Your task to perform on an android device: Go to accessibility settings Image 0: 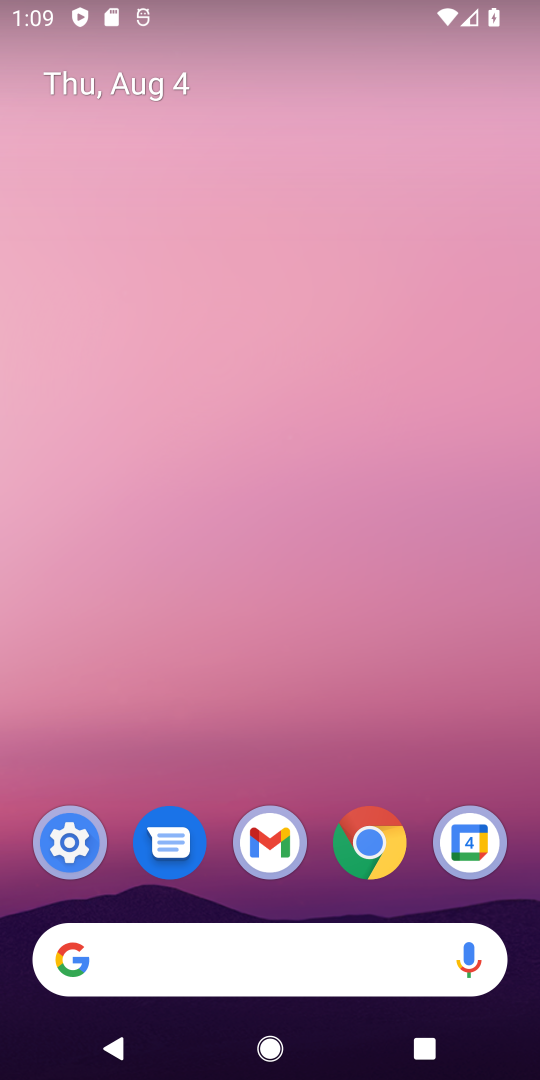
Step 0: click (64, 847)
Your task to perform on an android device: Go to accessibility settings Image 1: 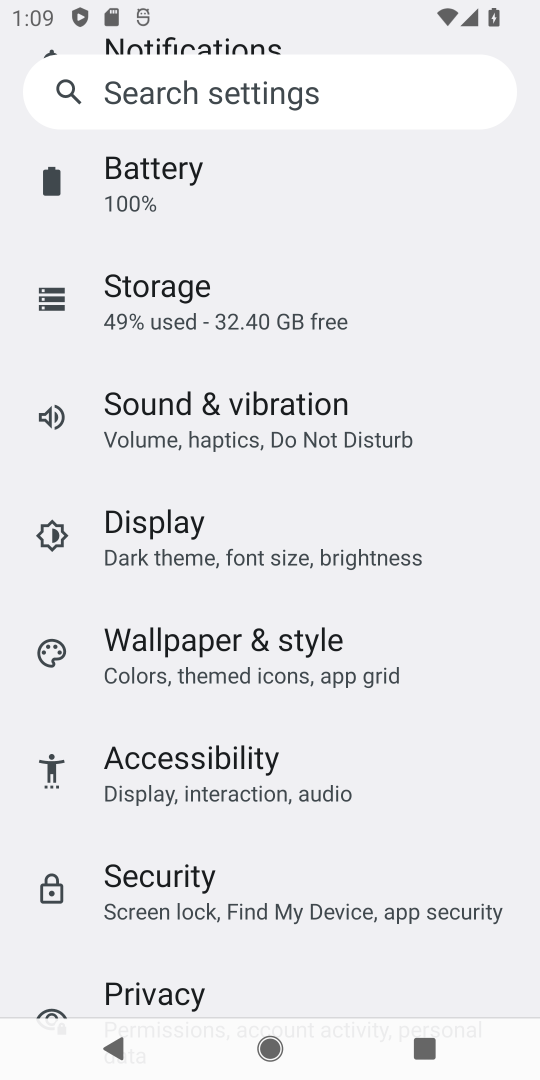
Step 1: click (241, 769)
Your task to perform on an android device: Go to accessibility settings Image 2: 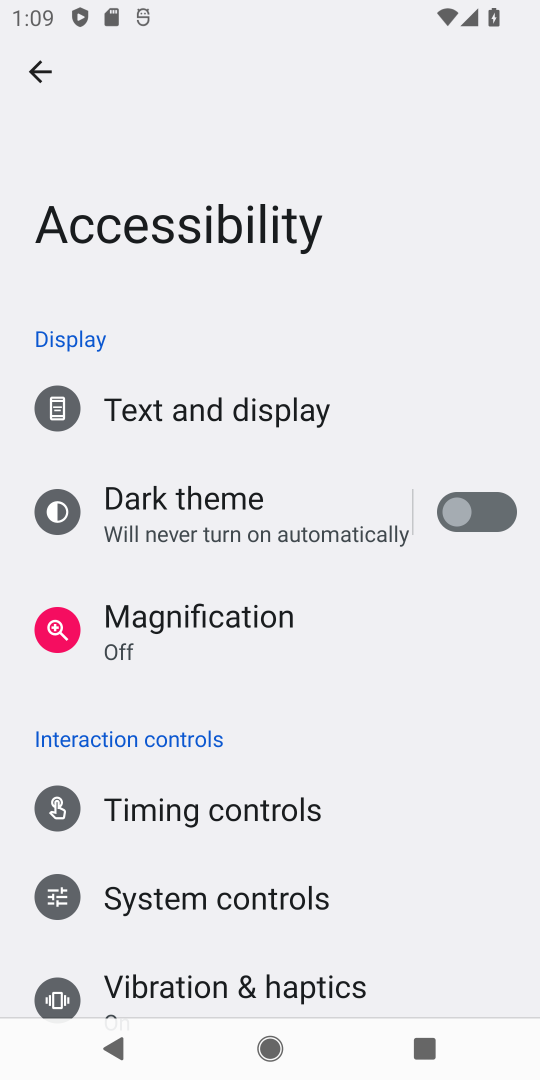
Step 2: task complete